Your task to perform on an android device: Search for Italian restaurants on Maps Image 0: 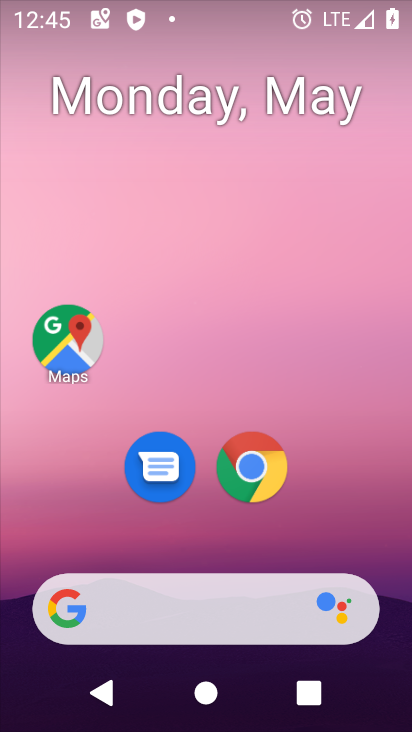
Step 0: click (66, 341)
Your task to perform on an android device: Search for Italian restaurants on Maps Image 1: 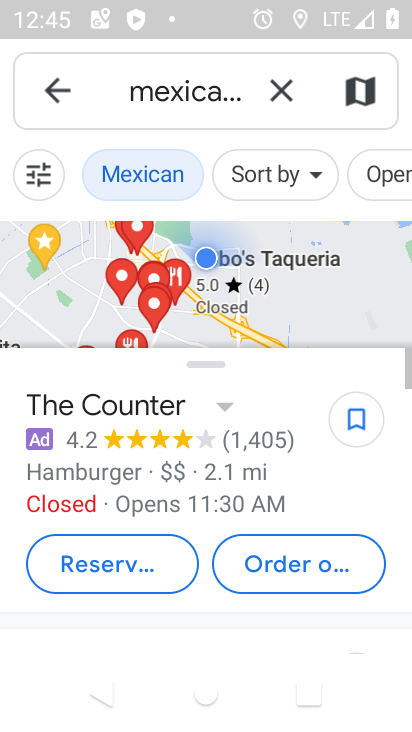
Step 1: click (277, 91)
Your task to perform on an android device: Search for Italian restaurants on Maps Image 2: 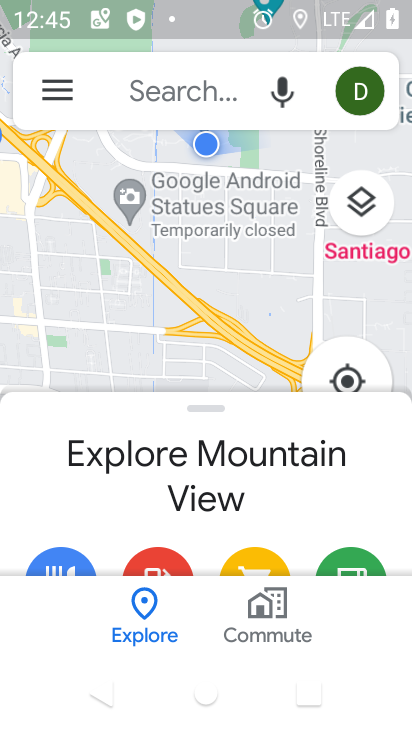
Step 2: click (141, 97)
Your task to perform on an android device: Search for Italian restaurants on Maps Image 3: 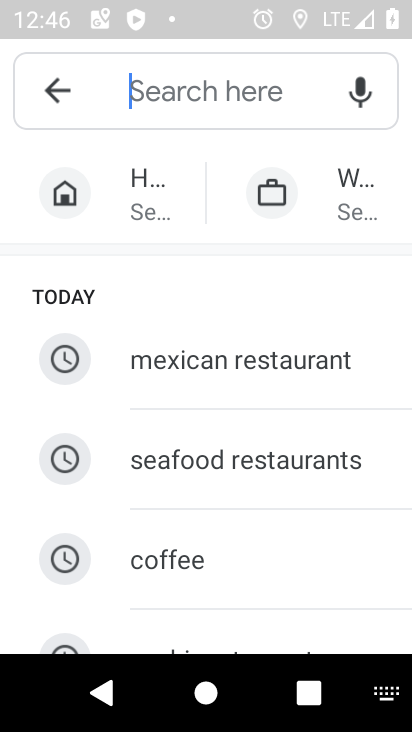
Step 3: type "italian restaurant"
Your task to perform on an android device: Search for Italian restaurants on Maps Image 4: 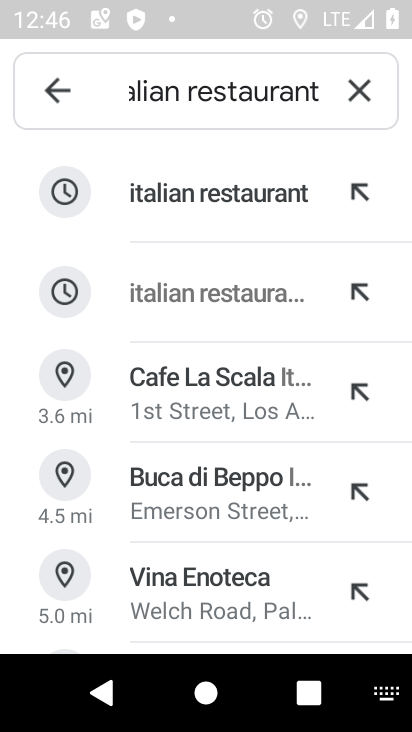
Step 4: click (193, 197)
Your task to perform on an android device: Search for Italian restaurants on Maps Image 5: 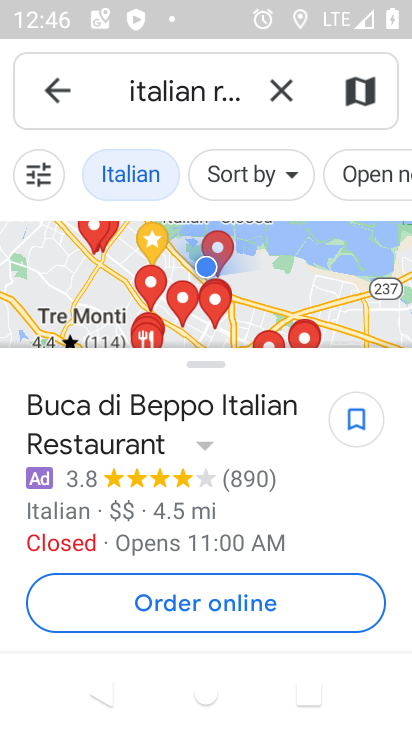
Step 5: task complete